Your task to perform on an android device: Show me popular games on the Play Store Image 0: 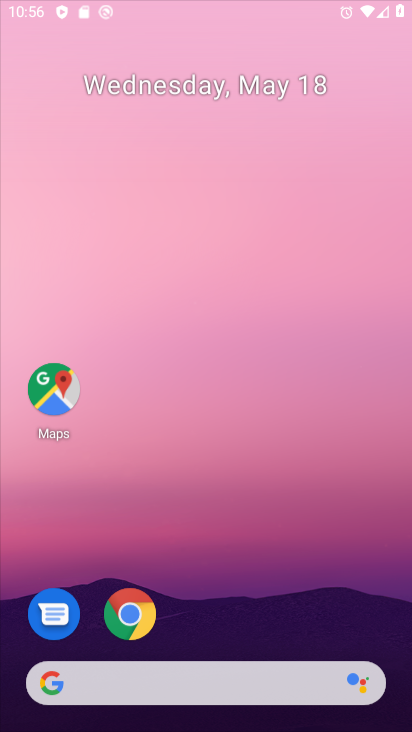
Step 0: press home button
Your task to perform on an android device: Show me popular games on the Play Store Image 1: 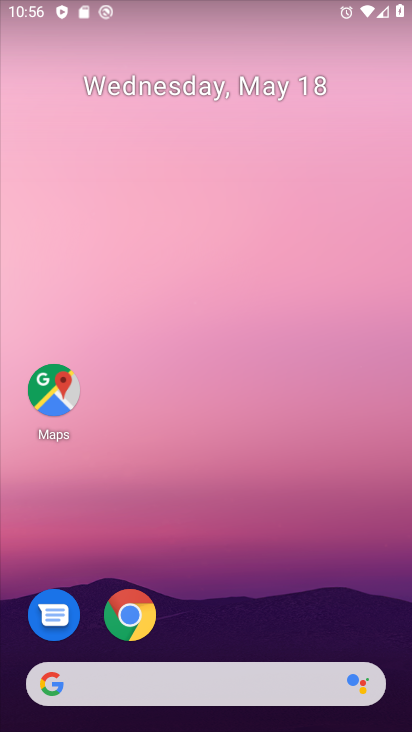
Step 1: drag from (203, 663) to (214, 322)
Your task to perform on an android device: Show me popular games on the Play Store Image 2: 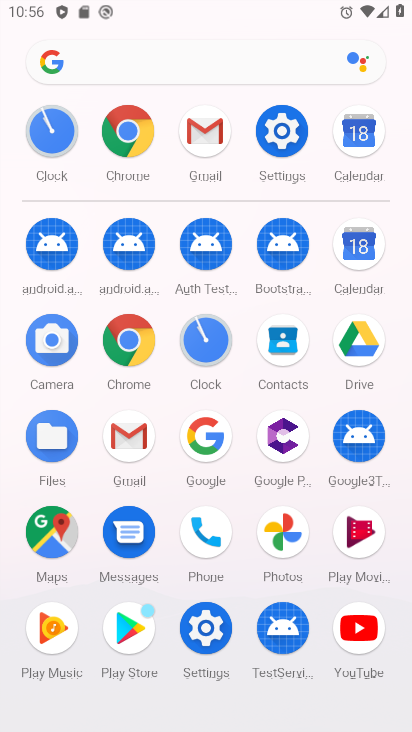
Step 2: click (127, 629)
Your task to perform on an android device: Show me popular games on the Play Store Image 3: 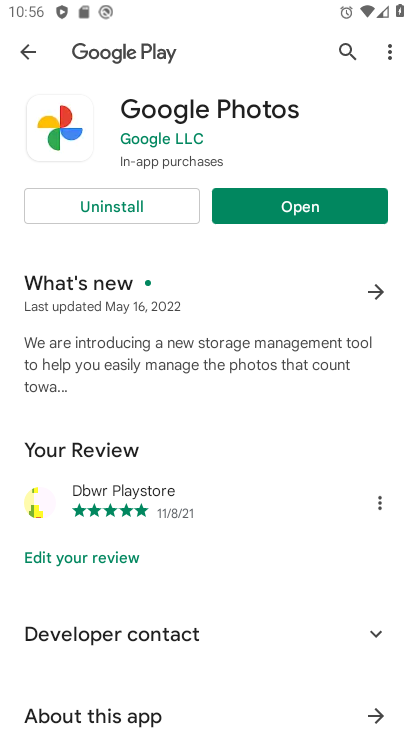
Step 3: click (29, 53)
Your task to perform on an android device: Show me popular games on the Play Store Image 4: 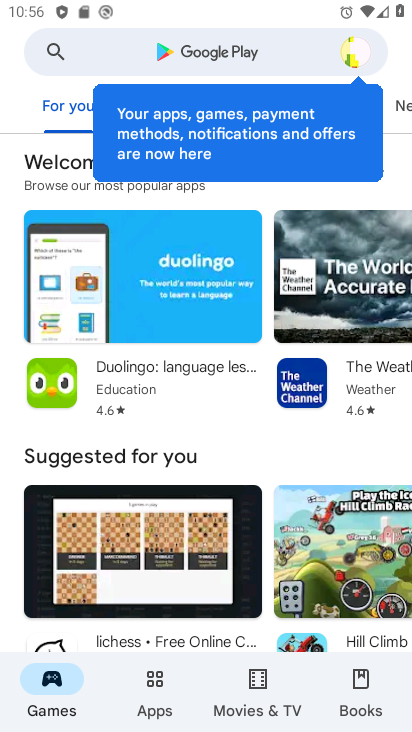
Step 4: click (209, 43)
Your task to perform on an android device: Show me popular games on the Play Store Image 5: 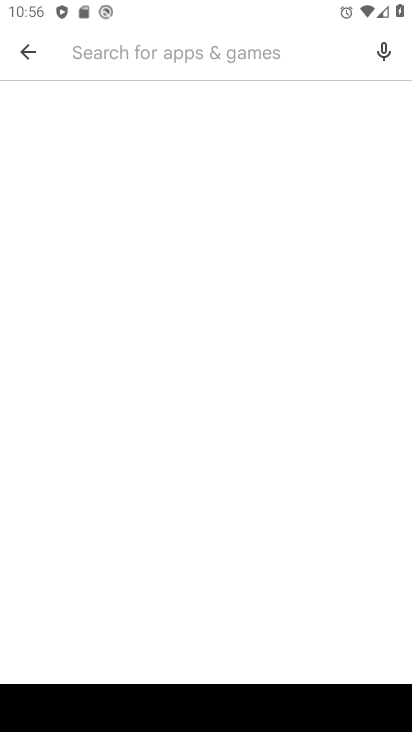
Step 5: type "popular games"
Your task to perform on an android device: Show me popular games on the Play Store Image 6: 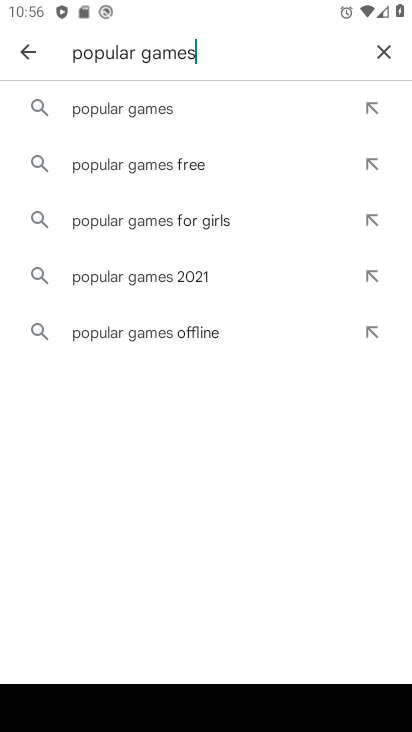
Step 6: click (173, 98)
Your task to perform on an android device: Show me popular games on the Play Store Image 7: 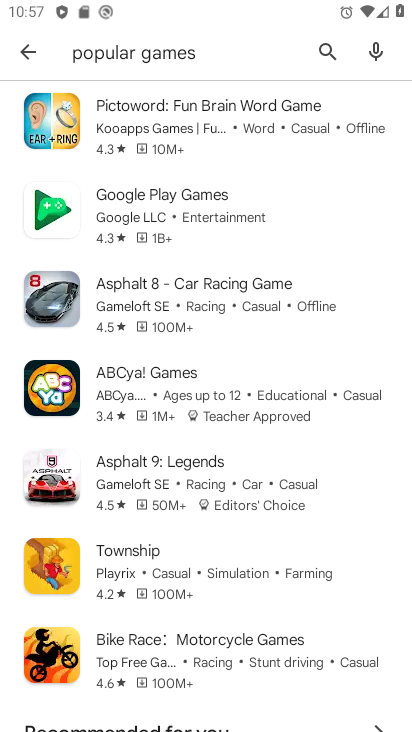
Step 7: task complete